Your task to perform on an android device: Open notification settings Image 0: 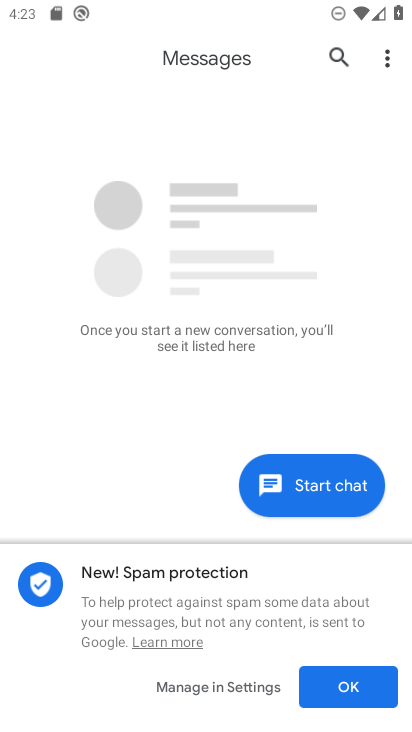
Step 0: press home button
Your task to perform on an android device: Open notification settings Image 1: 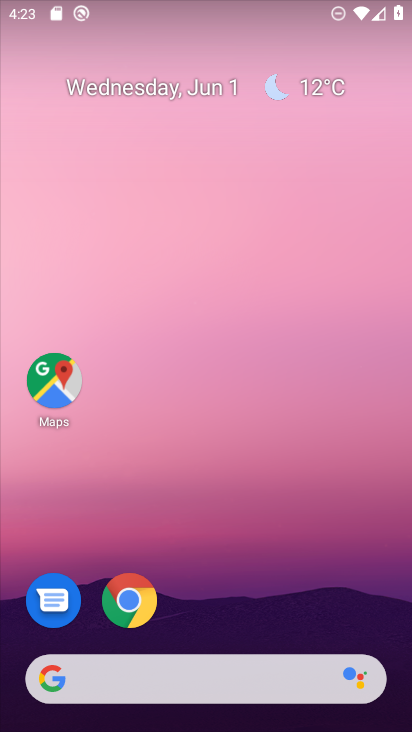
Step 1: drag from (392, 642) to (247, 70)
Your task to perform on an android device: Open notification settings Image 2: 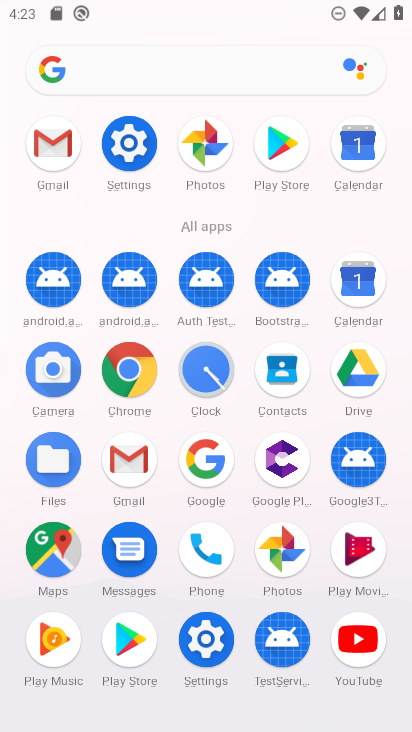
Step 2: click (205, 643)
Your task to perform on an android device: Open notification settings Image 3: 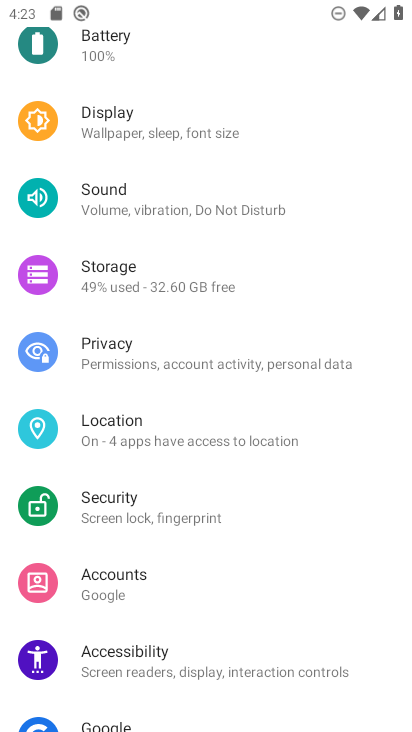
Step 3: drag from (310, 221) to (339, 524)
Your task to perform on an android device: Open notification settings Image 4: 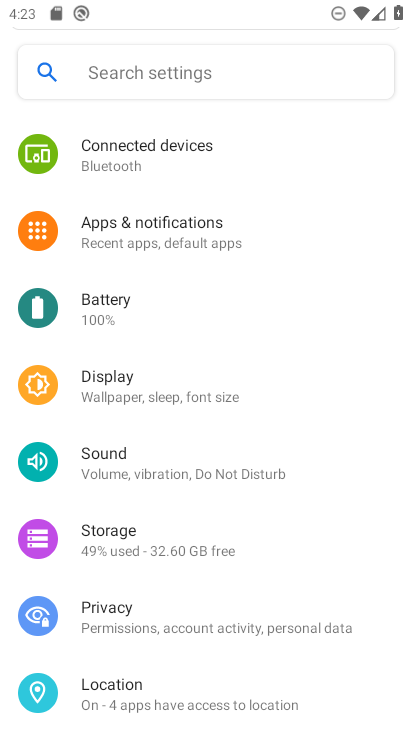
Step 4: click (151, 230)
Your task to perform on an android device: Open notification settings Image 5: 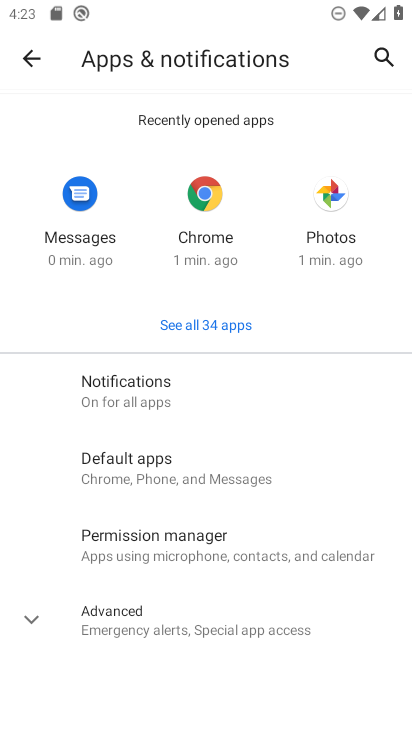
Step 5: click (138, 401)
Your task to perform on an android device: Open notification settings Image 6: 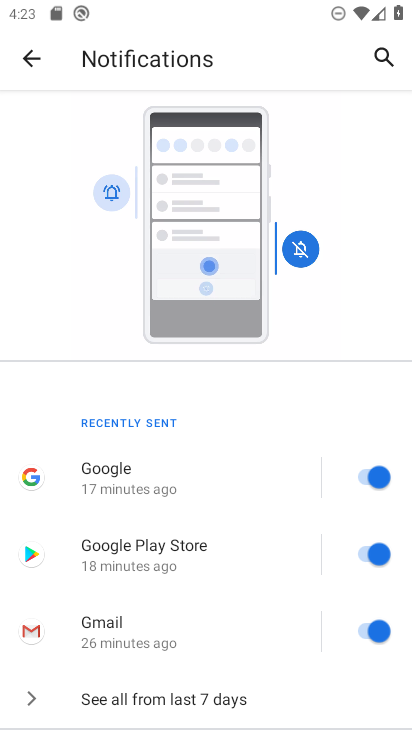
Step 6: drag from (268, 671) to (234, 261)
Your task to perform on an android device: Open notification settings Image 7: 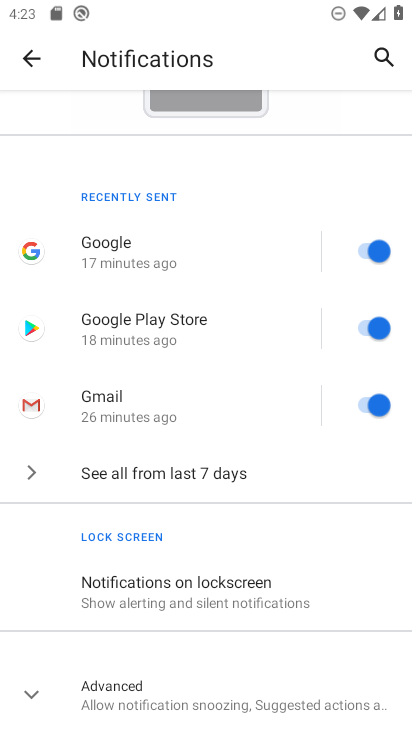
Step 7: click (31, 689)
Your task to perform on an android device: Open notification settings Image 8: 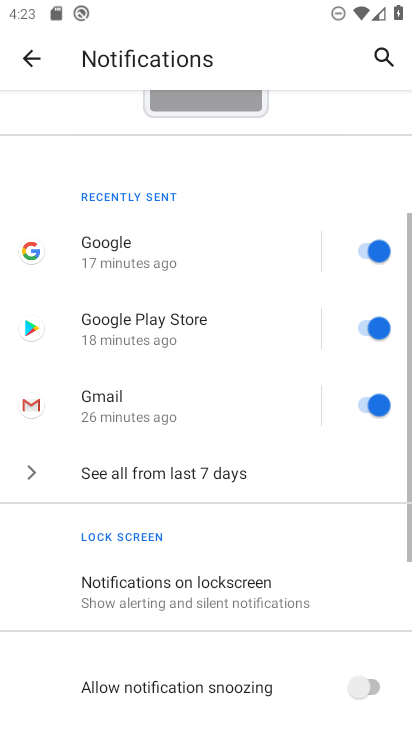
Step 8: task complete